Your task to perform on an android device: Show me the alarms in the clock app Image 0: 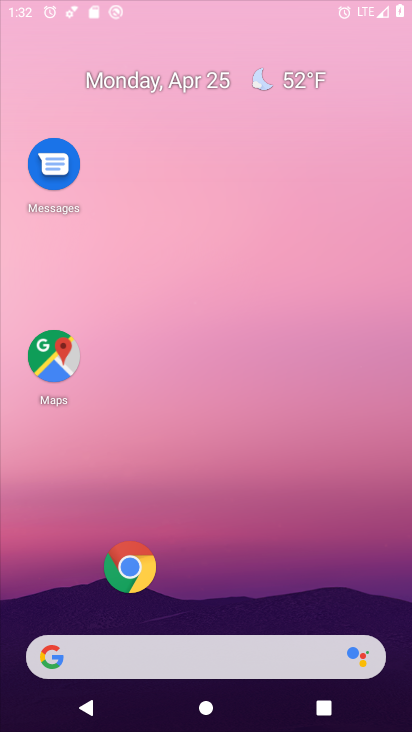
Step 0: click (259, 222)
Your task to perform on an android device: Show me the alarms in the clock app Image 1: 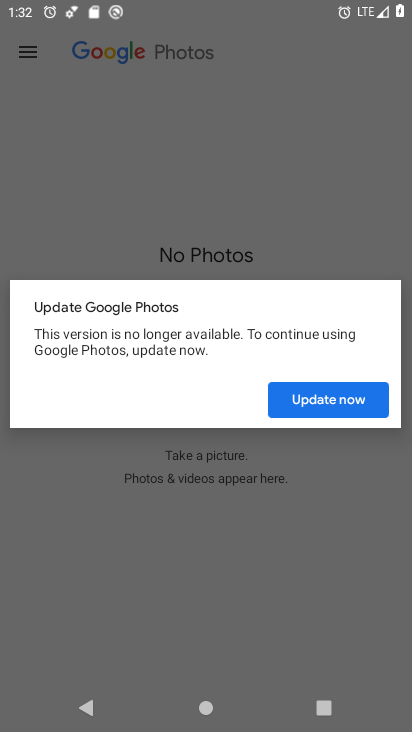
Step 1: press home button
Your task to perform on an android device: Show me the alarms in the clock app Image 2: 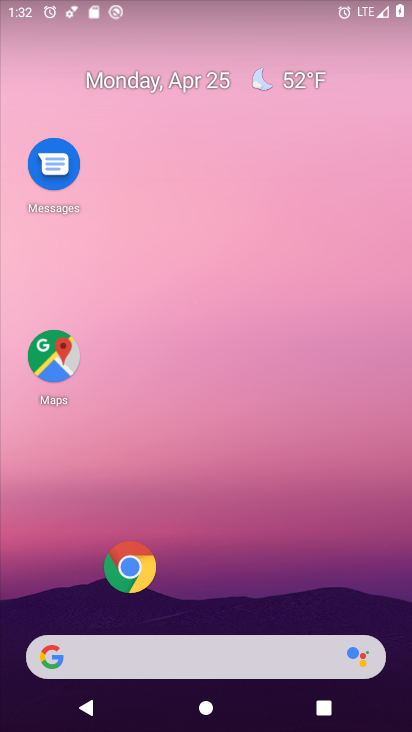
Step 2: drag from (226, 640) to (309, 30)
Your task to perform on an android device: Show me the alarms in the clock app Image 3: 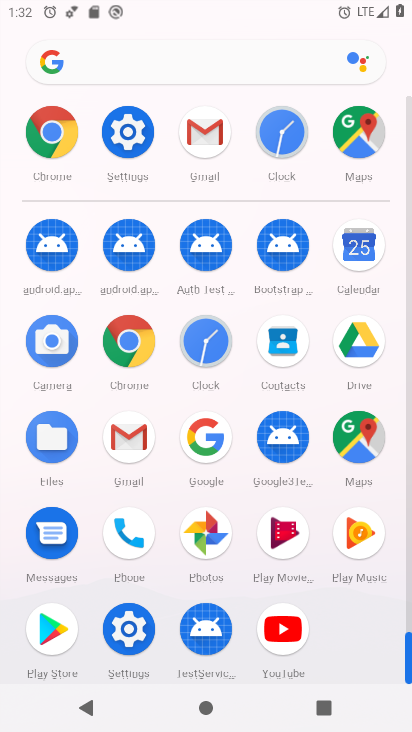
Step 3: click (59, 146)
Your task to perform on an android device: Show me the alarms in the clock app Image 4: 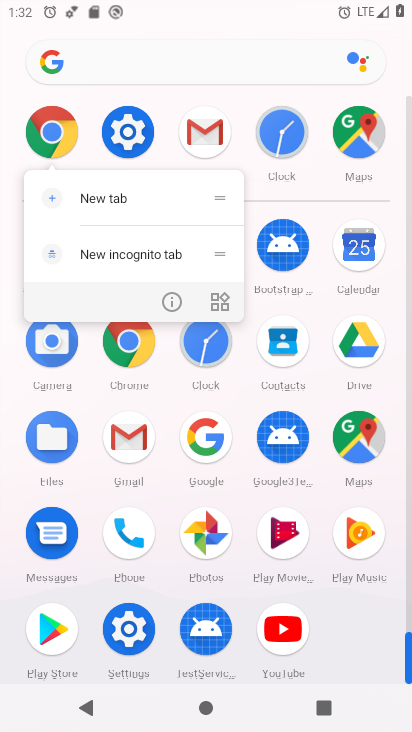
Step 4: click (215, 350)
Your task to perform on an android device: Show me the alarms in the clock app Image 5: 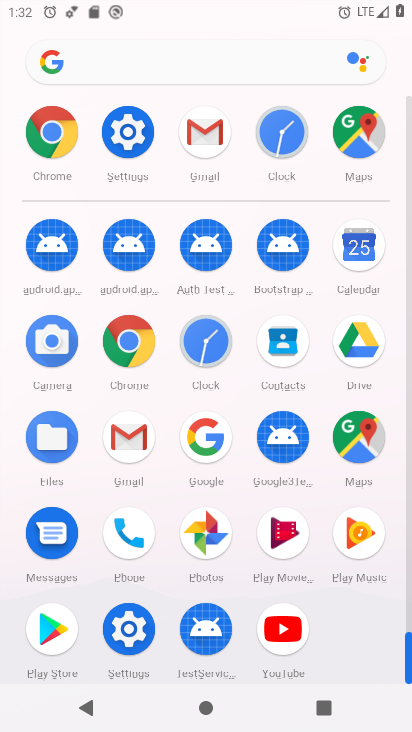
Step 5: click (215, 350)
Your task to perform on an android device: Show me the alarms in the clock app Image 6: 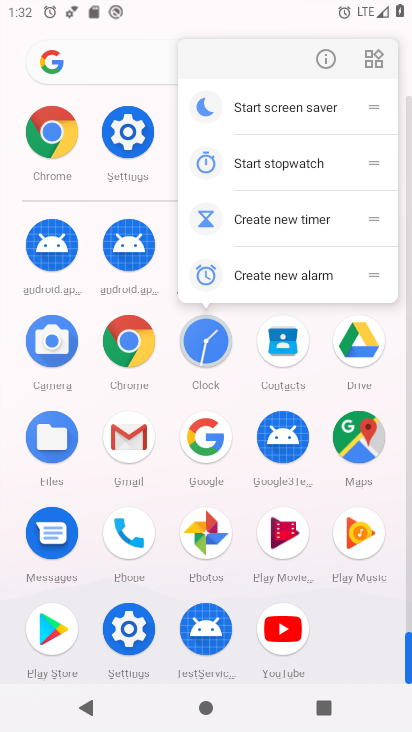
Step 6: click (223, 361)
Your task to perform on an android device: Show me the alarms in the clock app Image 7: 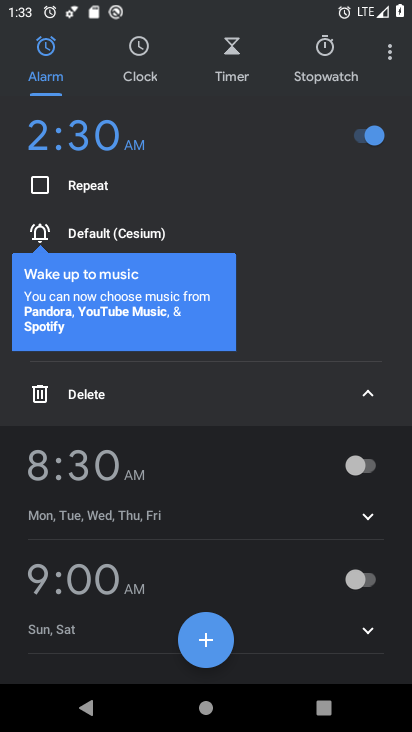
Step 7: task complete